Your task to perform on an android device: allow notifications from all sites in the chrome app Image 0: 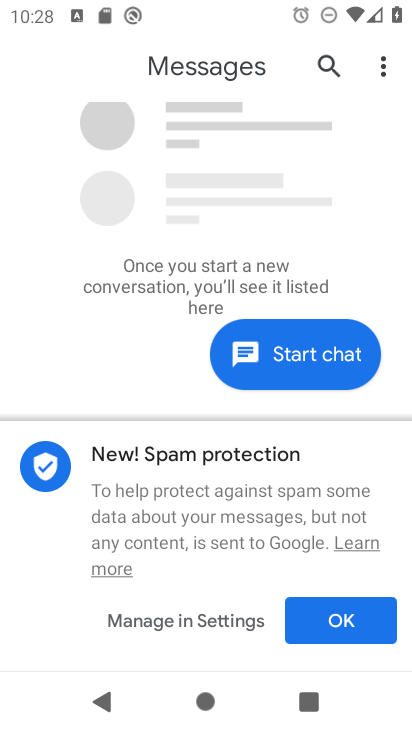
Step 0: press home button
Your task to perform on an android device: allow notifications from all sites in the chrome app Image 1: 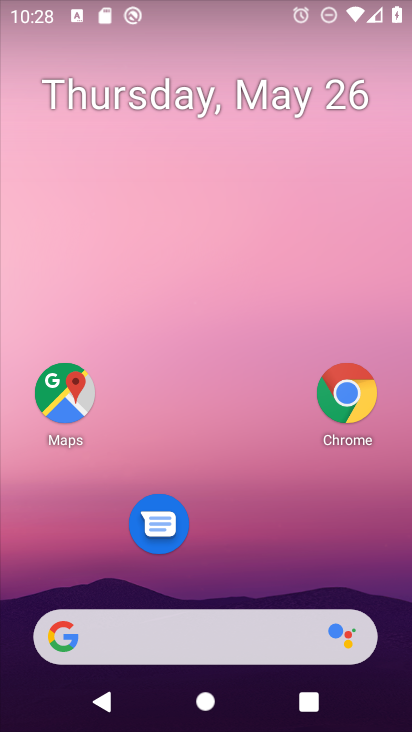
Step 1: click (350, 385)
Your task to perform on an android device: allow notifications from all sites in the chrome app Image 2: 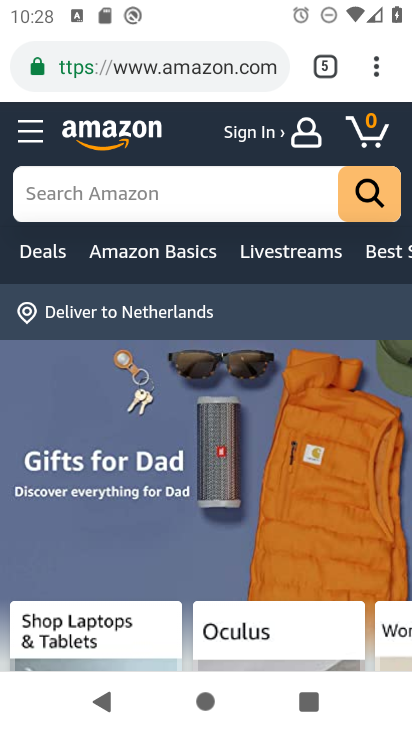
Step 2: click (382, 64)
Your task to perform on an android device: allow notifications from all sites in the chrome app Image 3: 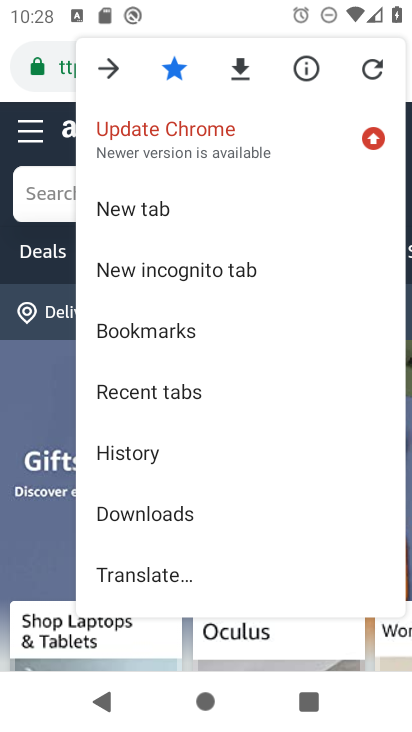
Step 3: drag from (267, 418) to (261, 119)
Your task to perform on an android device: allow notifications from all sites in the chrome app Image 4: 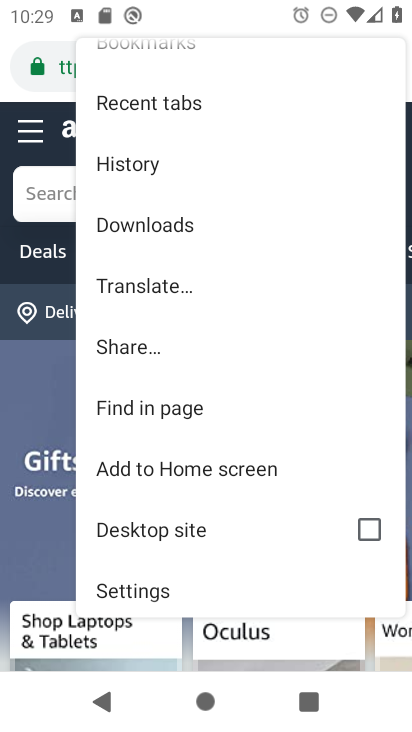
Step 4: click (193, 591)
Your task to perform on an android device: allow notifications from all sites in the chrome app Image 5: 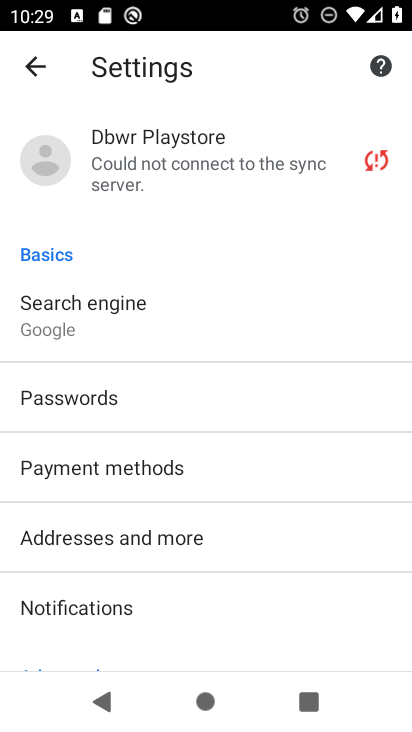
Step 5: click (268, 596)
Your task to perform on an android device: allow notifications from all sites in the chrome app Image 6: 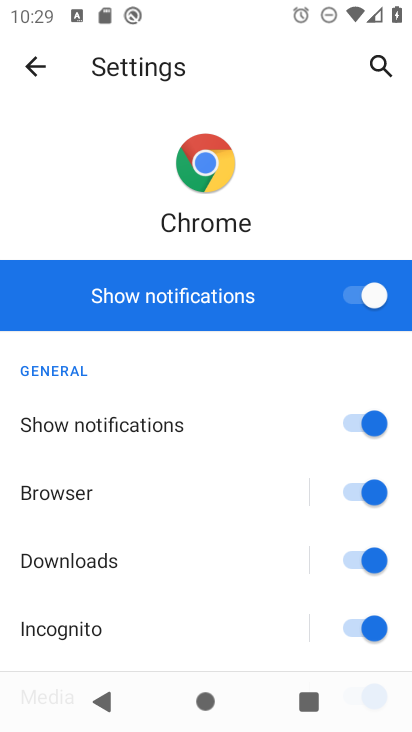
Step 6: task complete